Your task to perform on an android device: Open location settings Image 0: 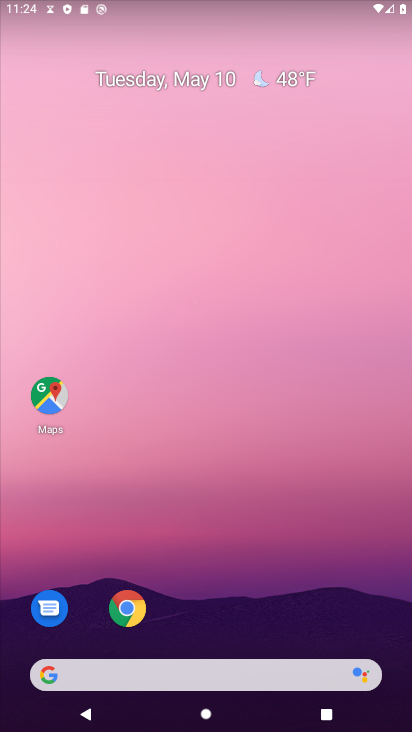
Step 0: drag from (191, 616) to (194, 150)
Your task to perform on an android device: Open location settings Image 1: 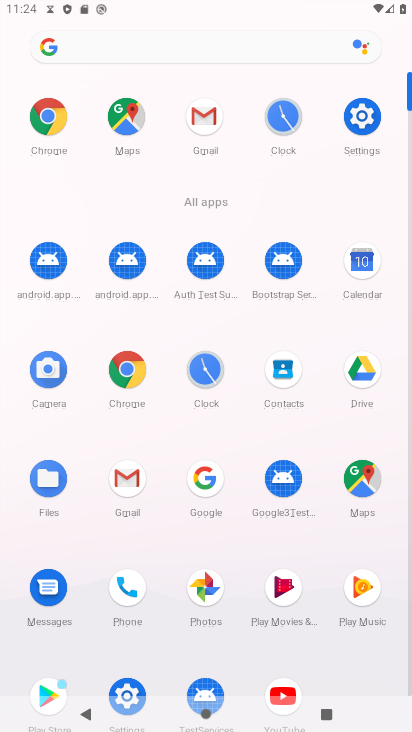
Step 1: click (368, 114)
Your task to perform on an android device: Open location settings Image 2: 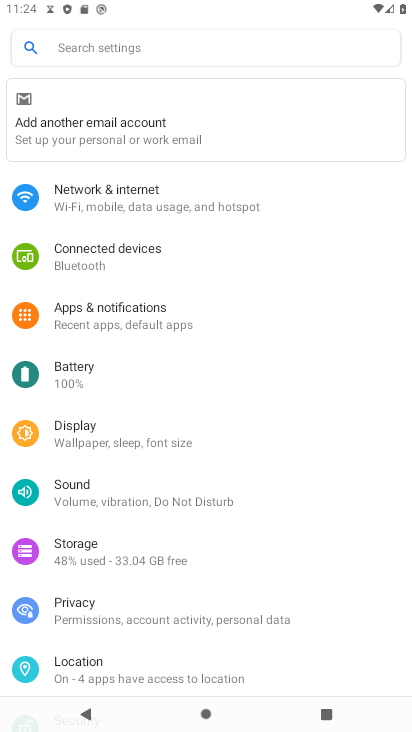
Step 2: click (144, 677)
Your task to perform on an android device: Open location settings Image 3: 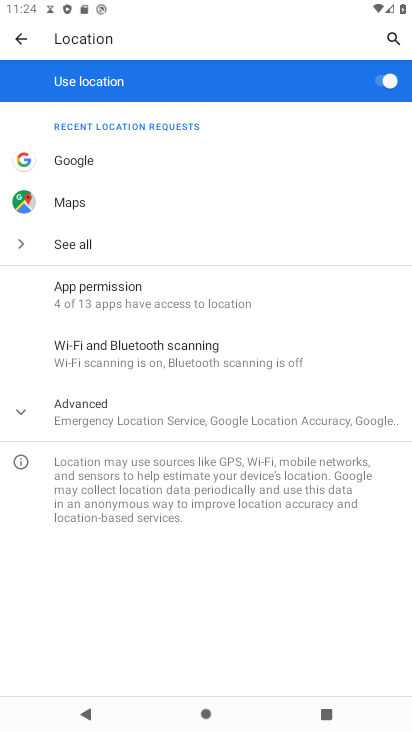
Step 3: task complete